Your task to perform on an android device: turn on javascript in the chrome app Image 0: 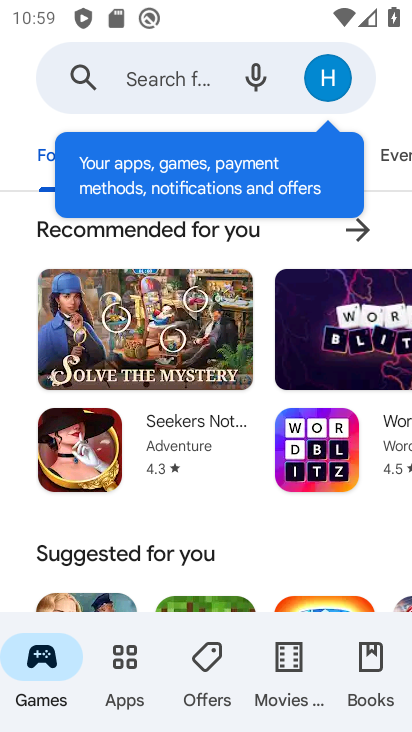
Step 0: press home button
Your task to perform on an android device: turn on javascript in the chrome app Image 1: 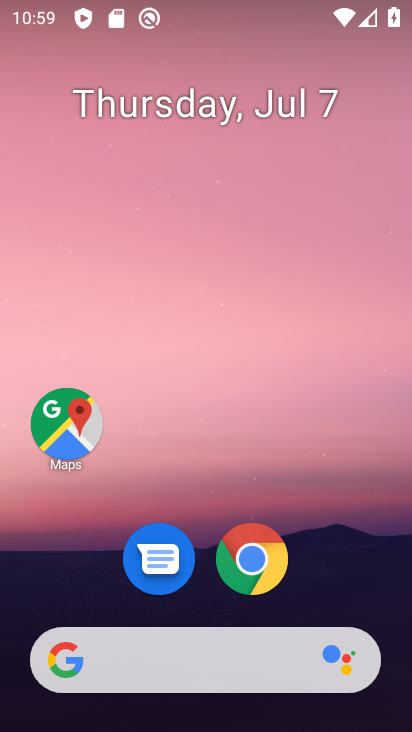
Step 1: drag from (355, 590) to (359, 76)
Your task to perform on an android device: turn on javascript in the chrome app Image 2: 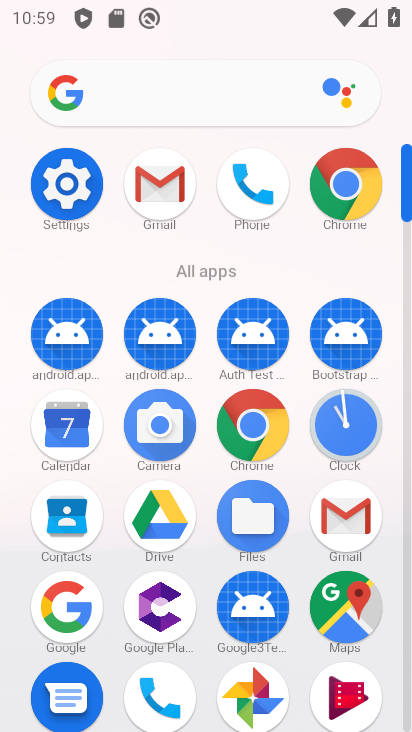
Step 2: click (269, 418)
Your task to perform on an android device: turn on javascript in the chrome app Image 3: 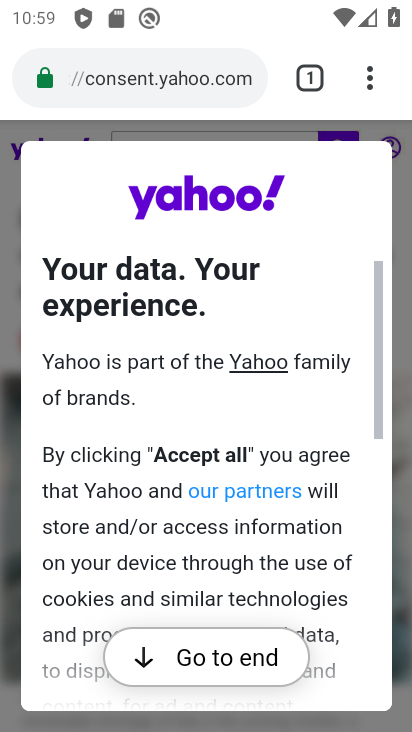
Step 3: click (366, 87)
Your task to perform on an android device: turn on javascript in the chrome app Image 4: 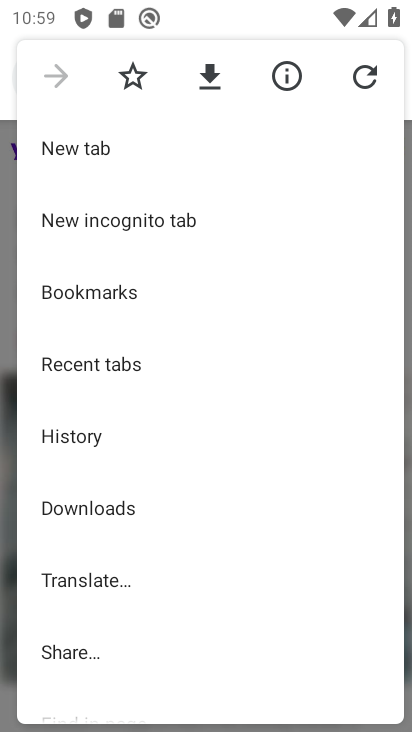
Step 4: drag from (294, 365) to (296, 286)
Your task to perform on an android device: turn on javascript in the chrome app Image 5: 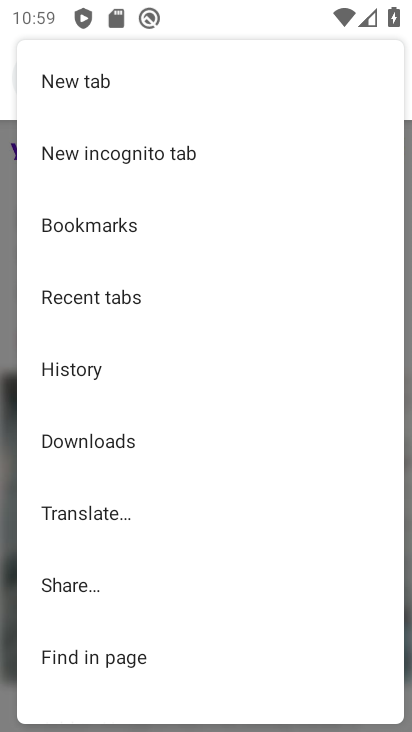
Step 5: drag from (302, 383) to (301, 288)
Your task to perform on an android device: turn on javascript in the chrome app Image 6: 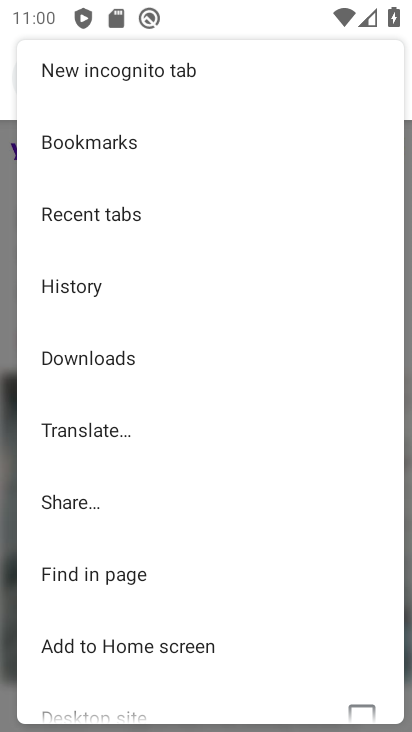
Step 6: drag from (292, 406) to (293, 292)
Your task to perform on an android device: turn on javascript in the chrome app Image 7: 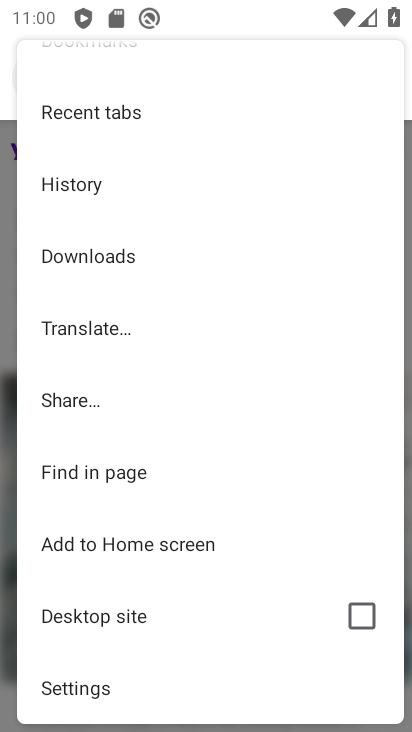
Step 7: drag from (289, 432) to (286, 300)
Your task to perform on an android device: turn on javascript in the chrome app Image 8: 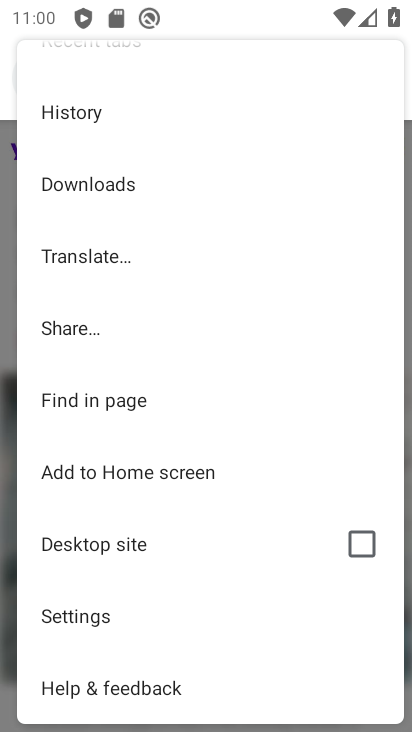
Step 8: click (127, 628)
Your task to perform on an android device: turn on javascript in the chrome app Image 9: 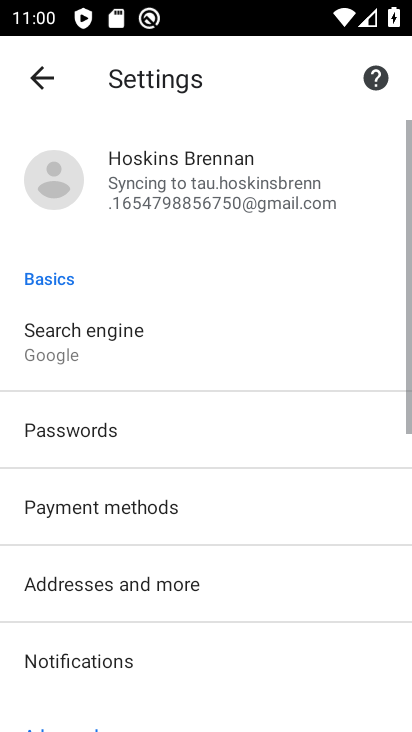
Step 9: drag from (302, 524) to (284, 392)
Your task to perform on an android device: turn on javascript in the chrome app Image 10: 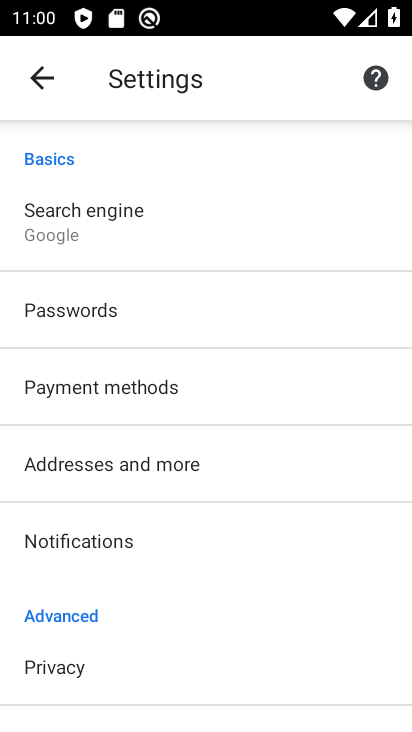
Step 10: drag from (291, 539) to (308, 407)
Your task to perform on an android device: turn on javascript in the chrome app Image 11: 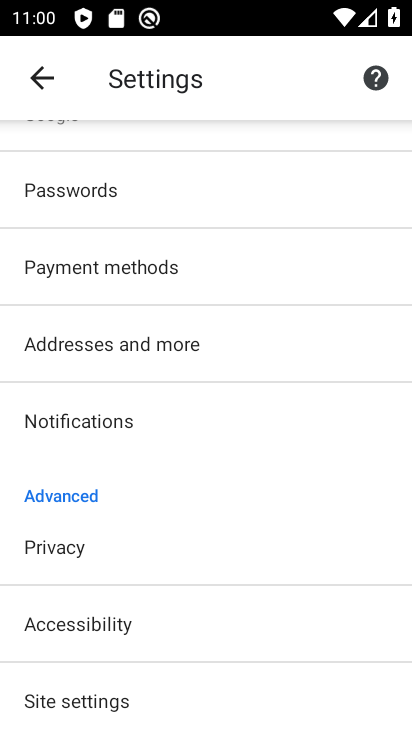
Step 11: drag from (302, 524) to (308, 407)
Your task to perform on an android device: turn on javascript in the chrome app Image 12: 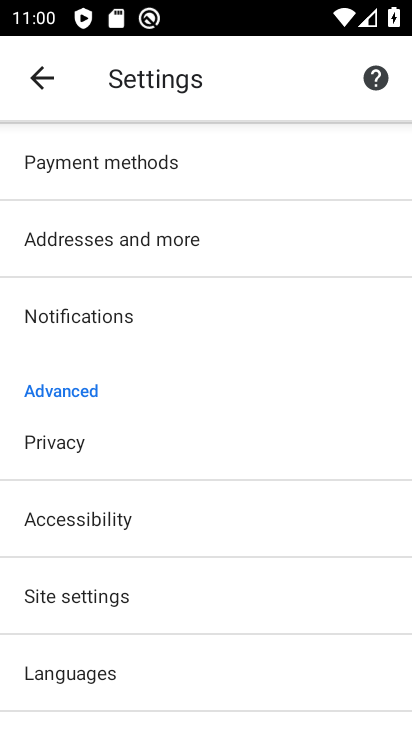
Step 12: drag from (310, 568) to (315, 428)
Your task to perform on an android device: turn on javascript in the chrome app Image 13: 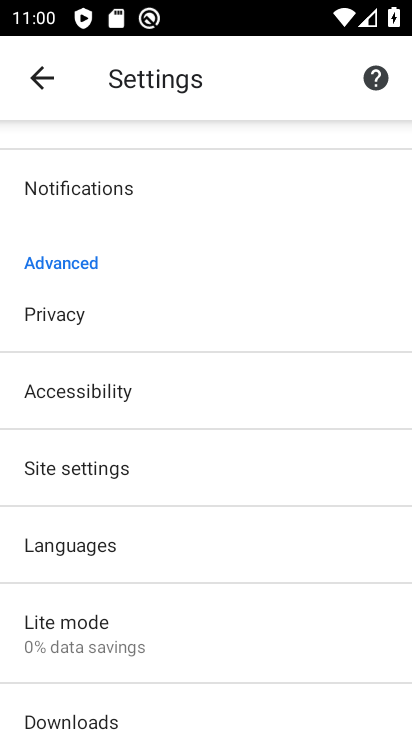
Step 13: drag from (296, 564) to (310, 441)
Your task to perform on an android device: turn on javascript in the chrome app Image 14: 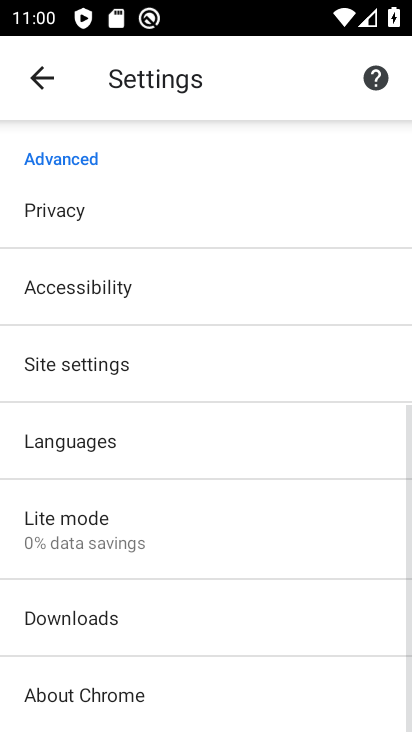
Step 14: click (261, 367)
Your task to perform on an android device: turn on javascript in the chrome app Image 15: 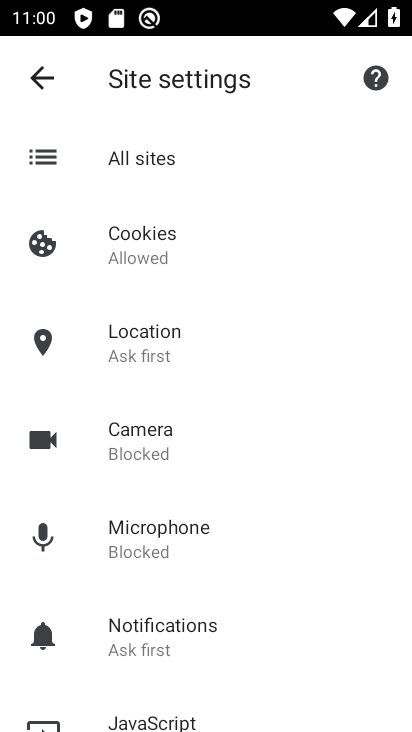
Step 15: drag from (320, 489) to (316, 304)
Your task to perform on an android device: turn on javascript in the chrome app Image 16: 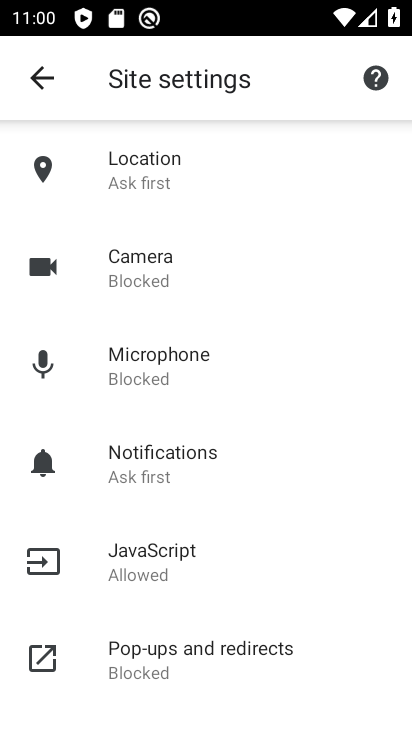
Step 16: drag from (308, 537) to (313, 399)
Your task to perform on an android device: turn on javascript in the chrome app Image 17: 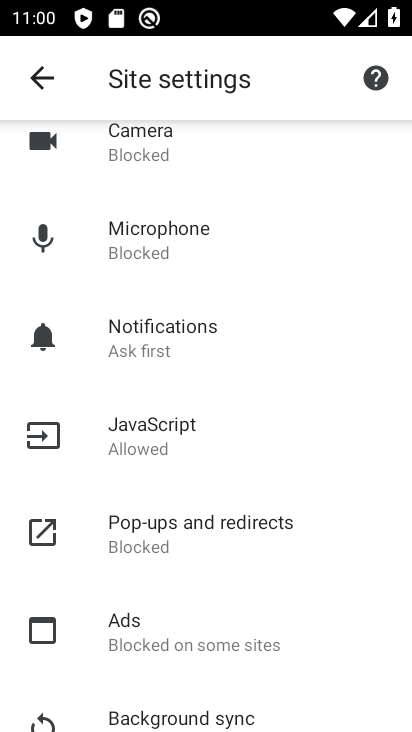
Step 17: drag from (312, 473) to (310, 332)
Your task to perform on an android device: turn on javascript in the chrome app Image 18: 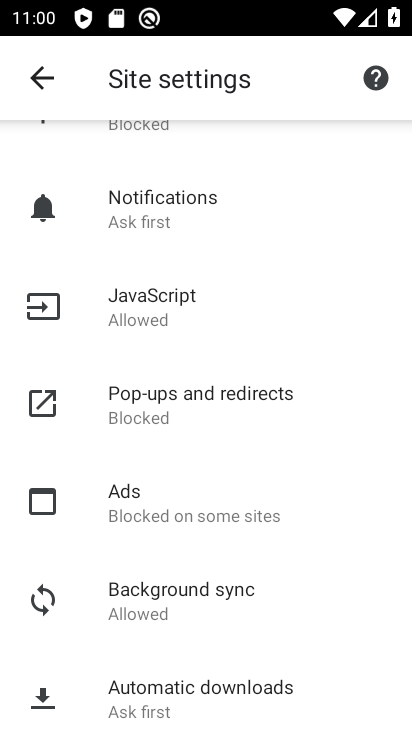
Step 18: click (171, 310)
Your task to perform on an android device: turn on javascript in the chrome app Image 19: 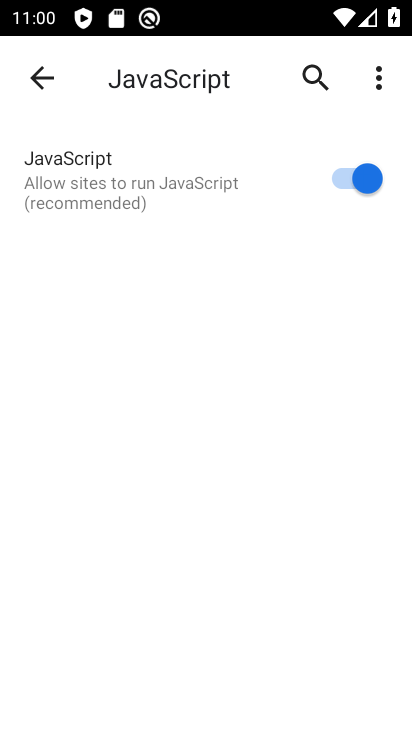
Step 19: task complete